Your task to perform on an android device: Open Reddit.com Image 0: 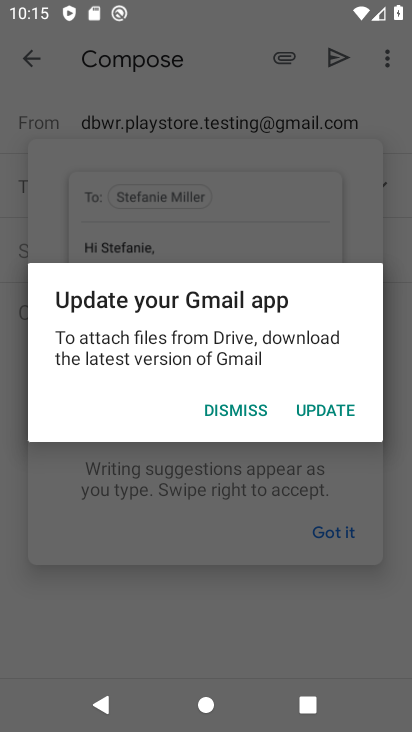
Step 0: press home button
Your task to perform on an android device: Open Reddit.com Image 1: 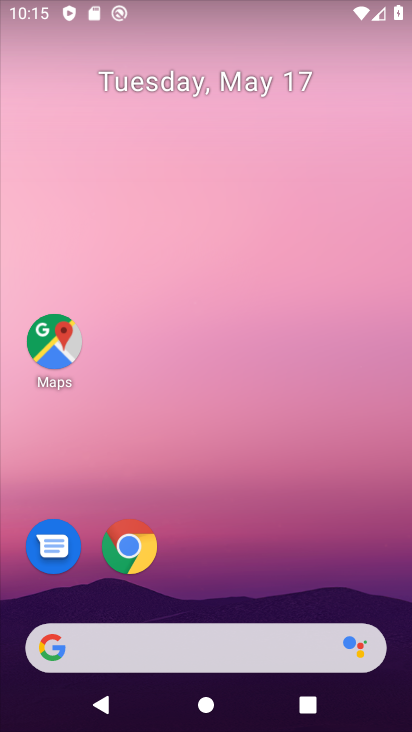
Step 1: click (133, 532)
Your task to perform on an android device: Open Reddit.com Image 2: 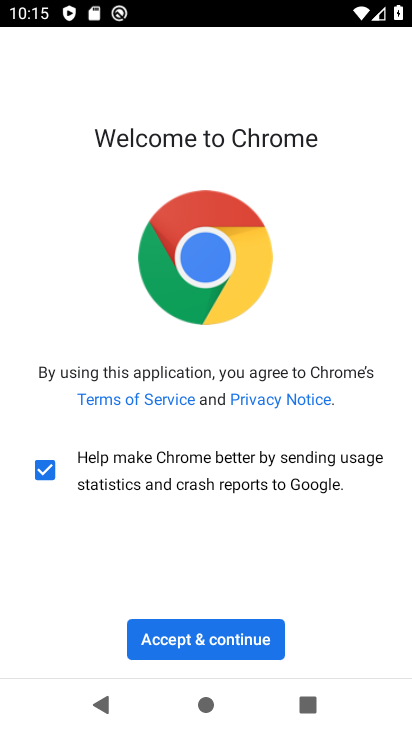
Step 2: click (181, 646)
Your task to perform on an android device: Open Reddit.com Image 3: 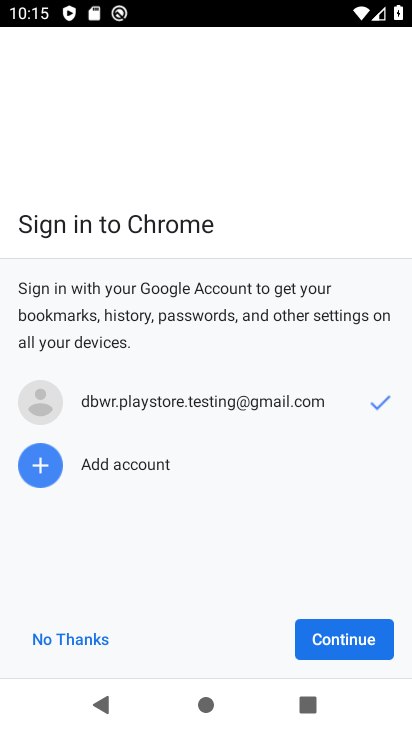
Step 3: click (55, 648)
Your task to perform on an android device: Open Reddit.com Image 4: 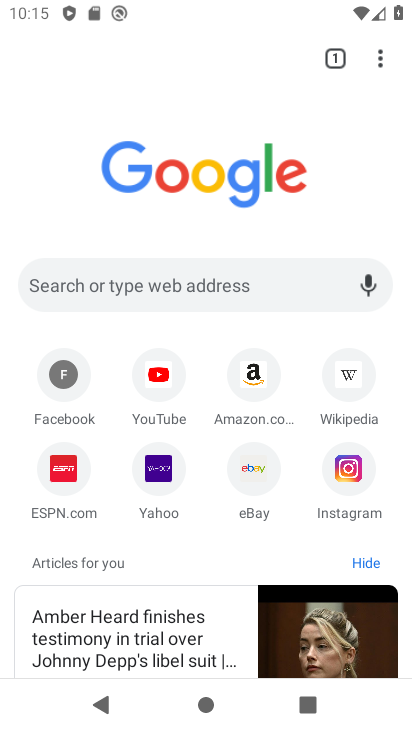
Step 4: click (95, 278)
Your task to perform on an android device: Open Reddit.com Image 5: 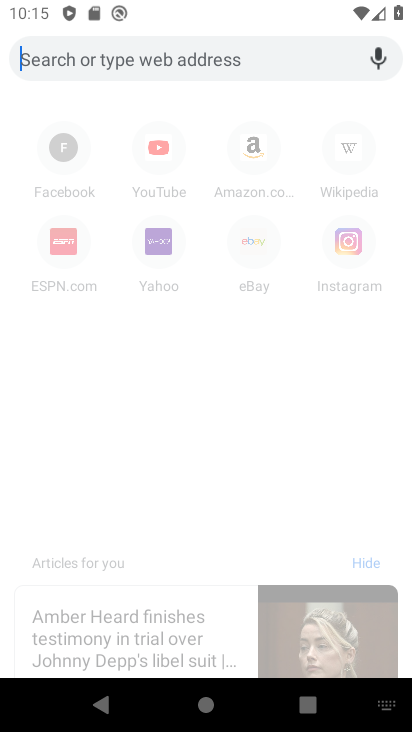
Step 5: type "reddit.com"
Your task to perform on an android device: Open Reddit.com Image 6: 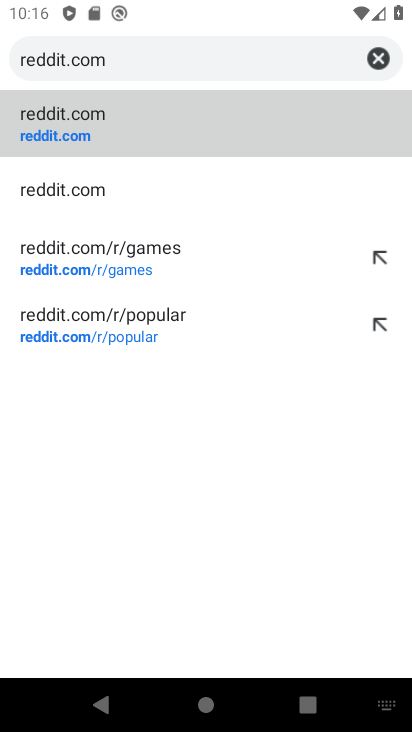
Step 6: click (56, 125)
Your task to perform on an android device: Open Reddit.com Image 7: 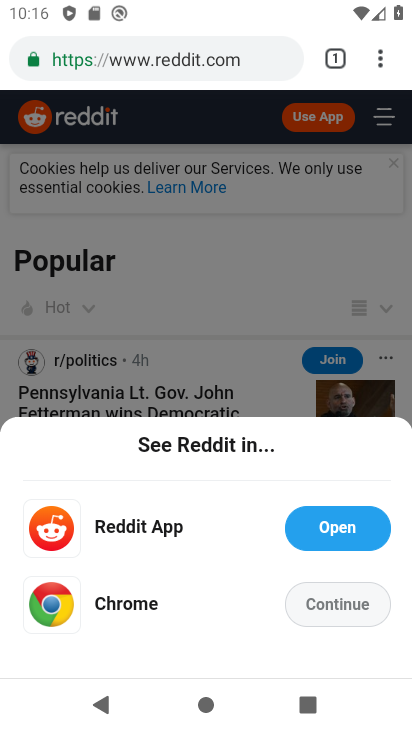
Step 7: task complete